Your task to perform on an android device: Go to Google maps Image 0: 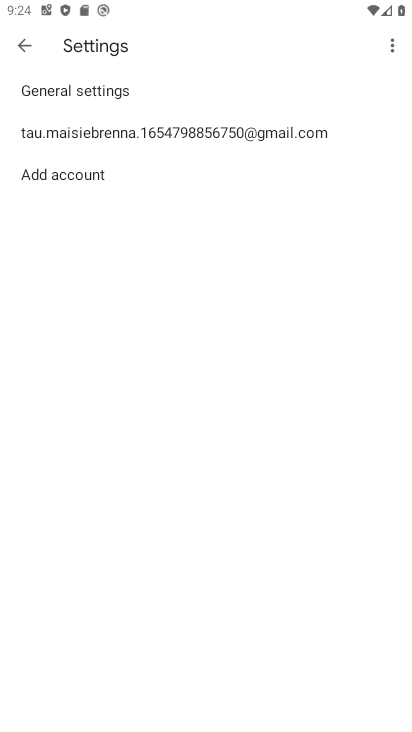
Step 0: press home button
Your task to perform on an android device: Go to Google maps Image 1: 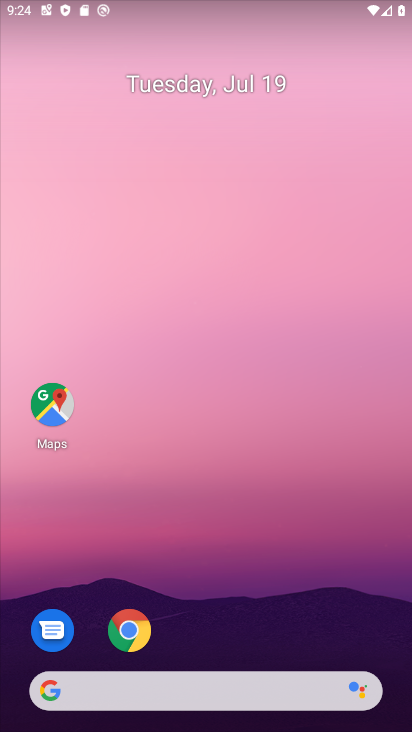
Step 1: click (53, 416)
Your task to perform on an android device: Go to Google maps Image 2: 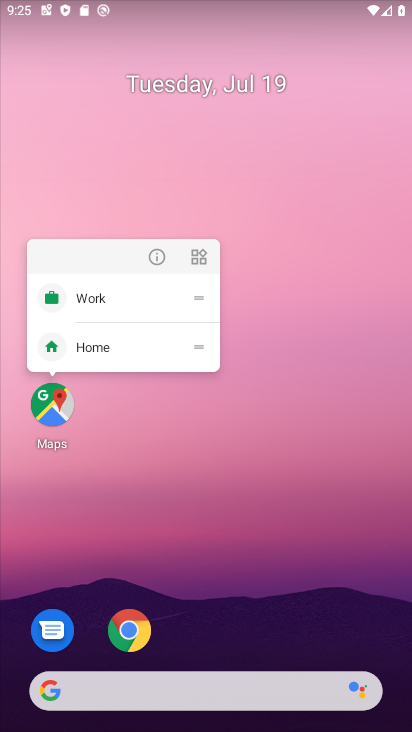
Step 2: click (47, 406)
Your task to perform on an android device: Go to Google maps Image 3: 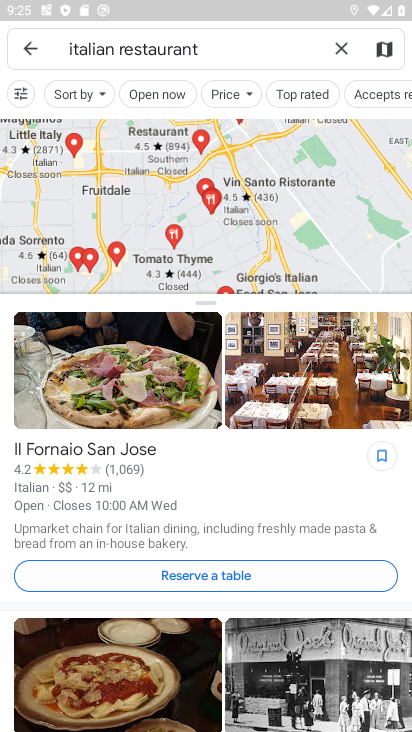
Step 3: task complete